Your task to perform on an android device: Open Chrome and go to the settings page Image 0: 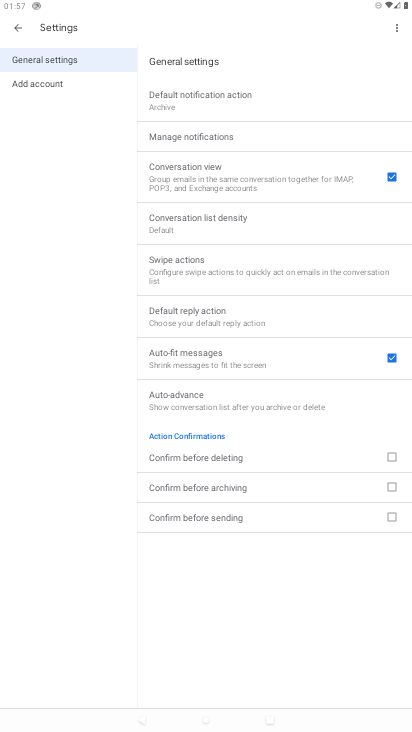
Step 0: press home button
Your task to perform on an android device: Open Chrome and go to the settings page Image 1: 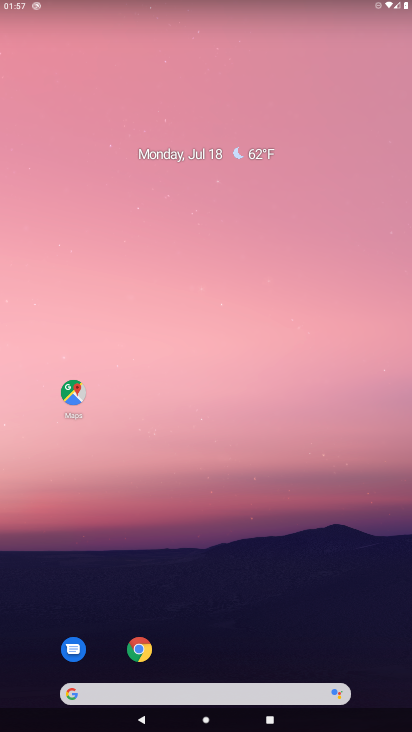
Step 1: drag from (150, 493) to (320, 140)
Your task to perform on an android device: Open Chrome and go to the settings page Image 2: 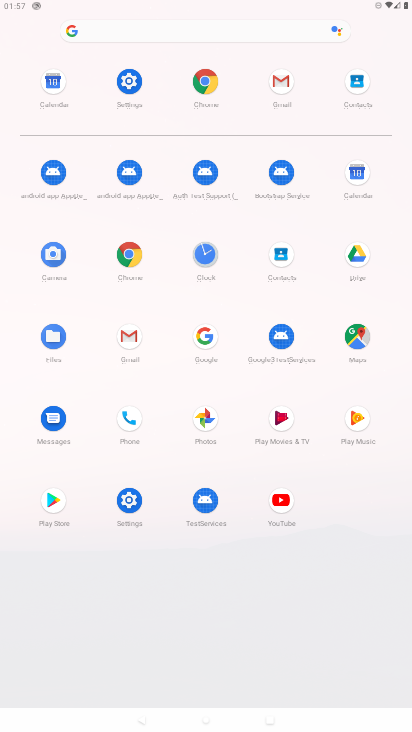
Step 2: click (131, 260)
Your task to perform on an android device: Open Chrome and go to the settings page Image 3: 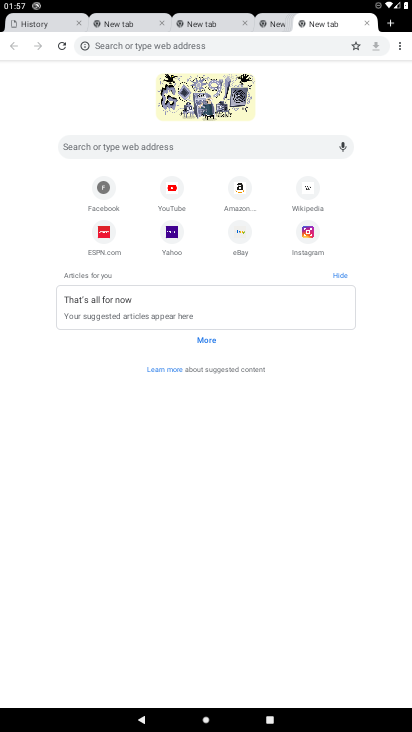
Step 3: click (399, 37)
Your task to perform on an android device: Open Chrome and go to the settings page Image 4: 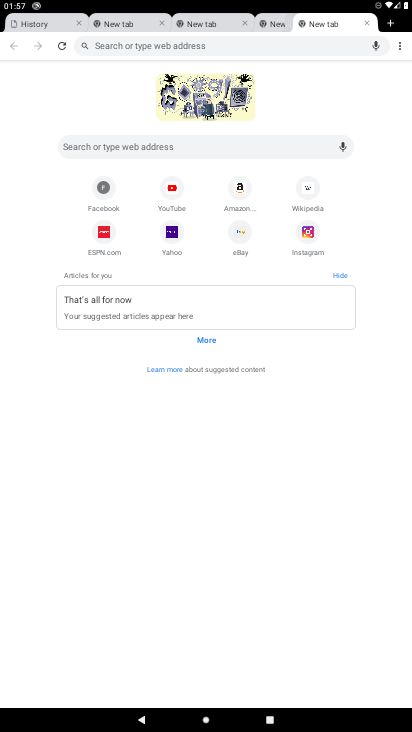
Step 4: click (398, 43)
Your task to perform on an android device: Open Chrome and go to the settings page Image 5: 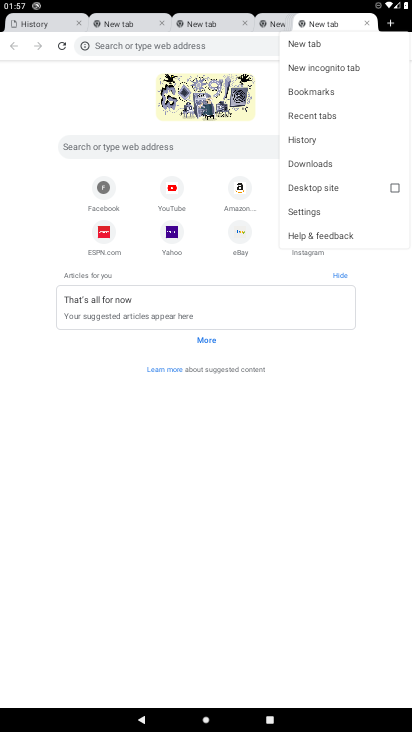
Step 5: click (317, 208)
Your task to perform on an android device: Open Chrome and go to the settings page Image 6: 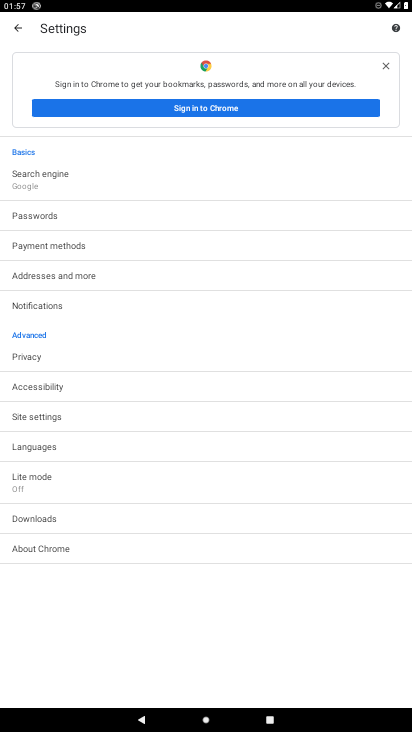
Step 6: task complete